Your task to perform on an android device: turn notification dots off Image 0: 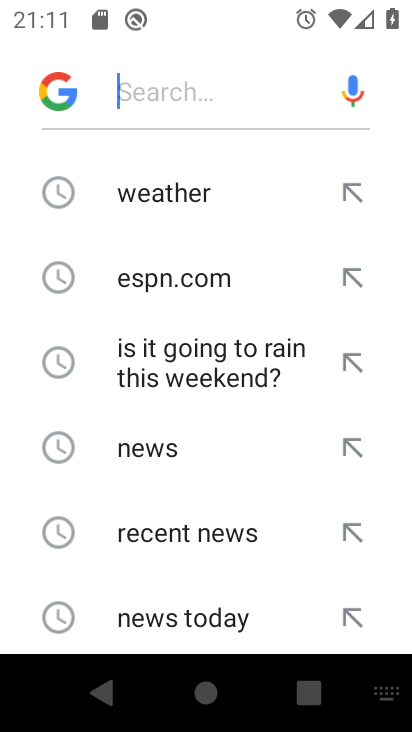
Step 0: press home button
Your task to perform on an android device: turn notification dots off Image 1: 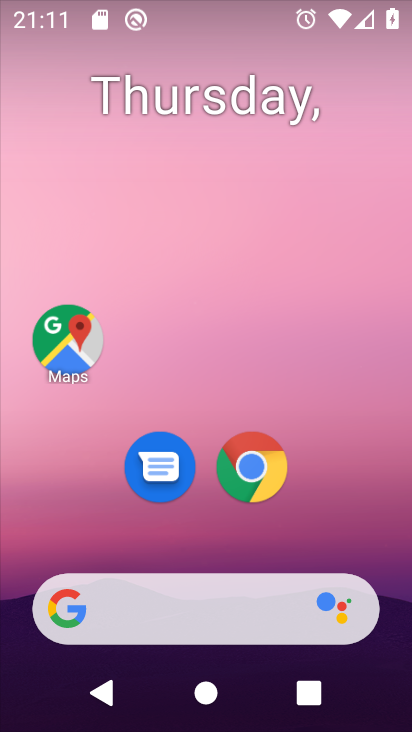
Step 1: drag from (333, 511) to (356, 226)
Your task to perform on an android device: turn notification dots off Image 2: 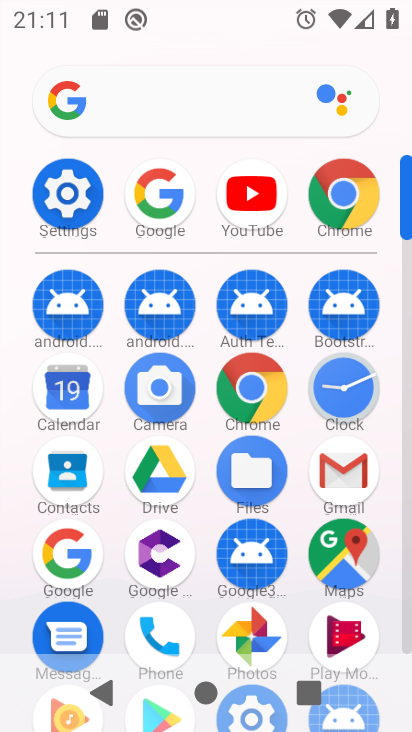
Step 2: click (63, 178)
Your task to perform on an android device: turn notification dots off Image 3: 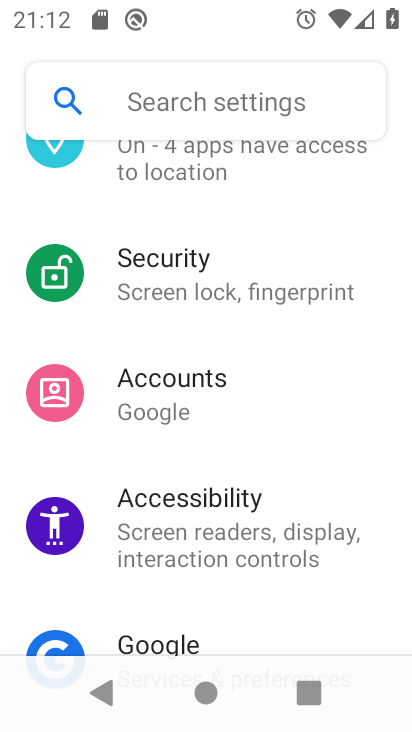
Step 3: click (196, 83)
Your task to perform on an android device: turn notification dots off Image 4: 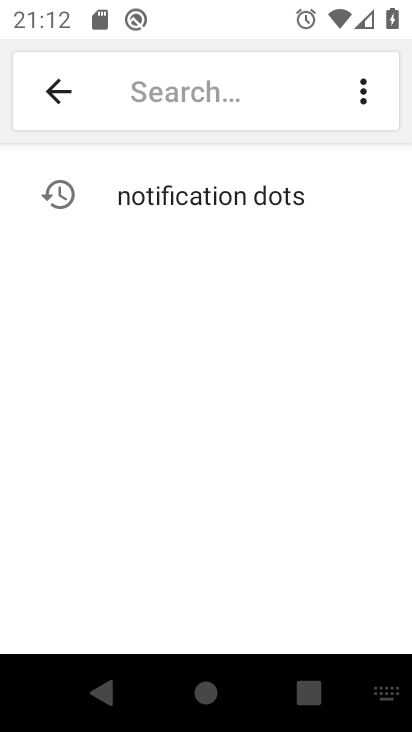
Step 4: click (194, 185)
Your task to perform on an android device: turn notification dots off Image 5: 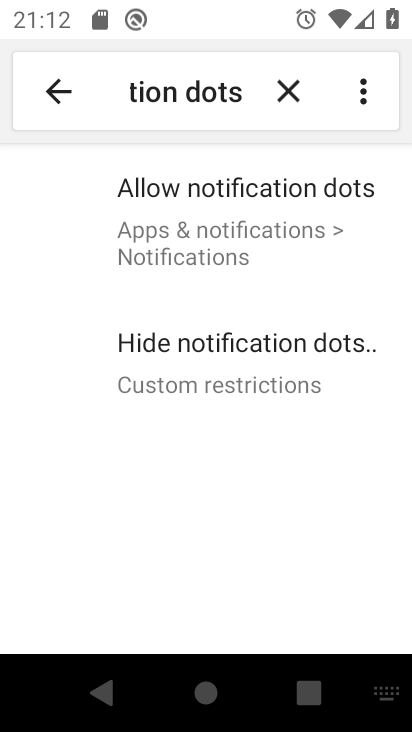
Step 5: click (340, 193)
Your task to perform on an android device: turn notification dots off Image 6: 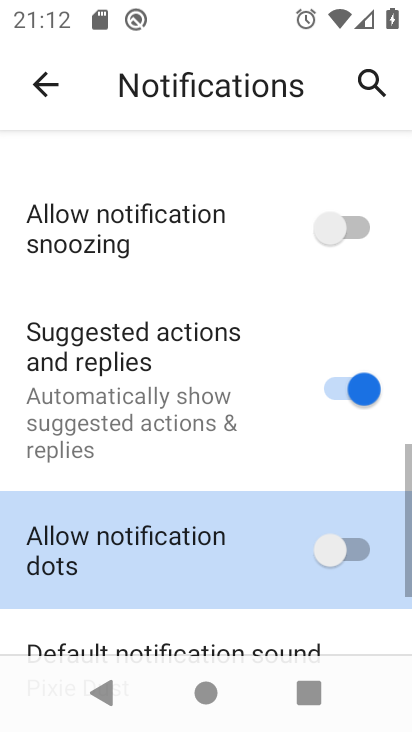
Step 6: task complete